Your task to perform on an android device: What is the recent news? Image 0: 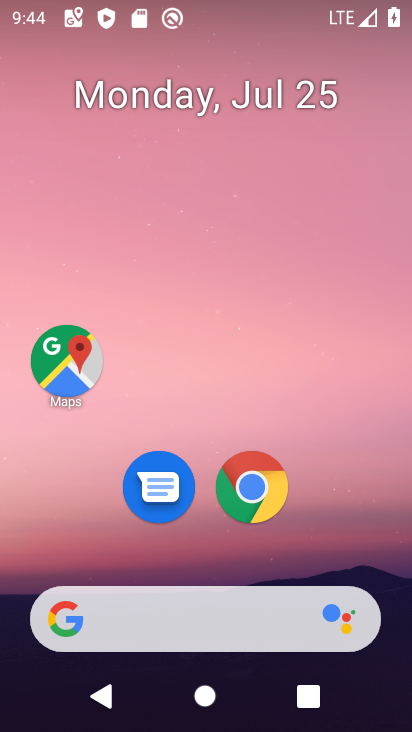
Step 0: click (198, 618)
Your task to perform on an android device: What is the recent news? Image 1: 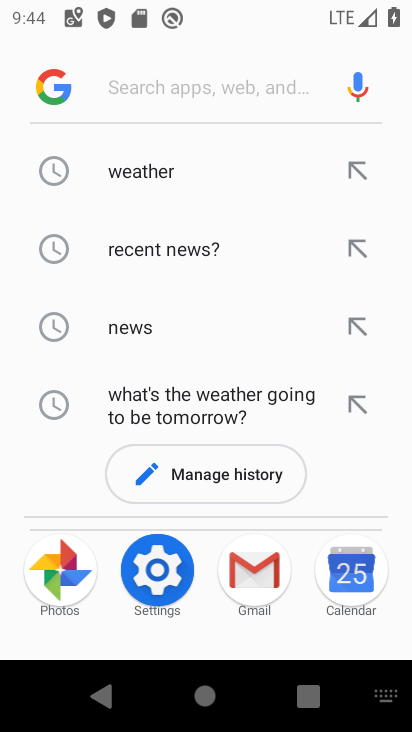
Step 1: click (151, 248)
Your task to perform on an android device: What is the recent news? Image 2: 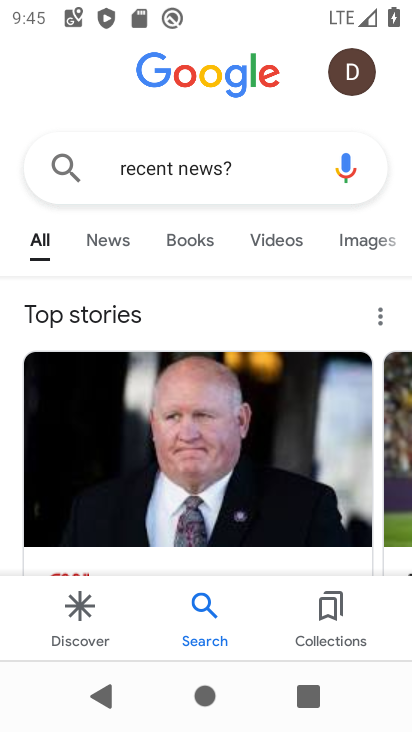
Step 2: task complete